Your task to perform on an android device: Open network settings Image 0: 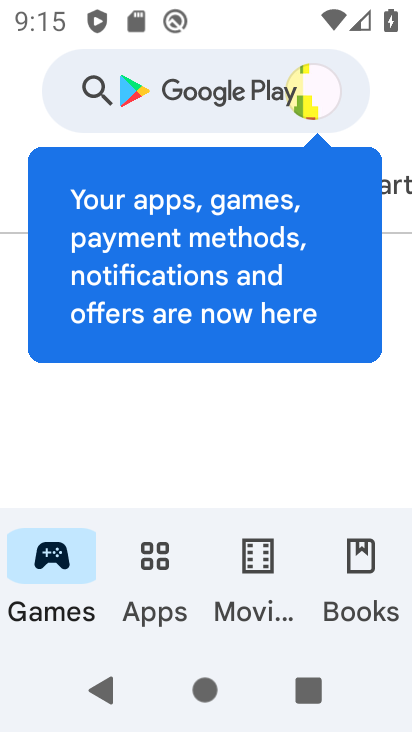
Step 0: press back button
Your task to perform on an android device: Open network settings Image 1: 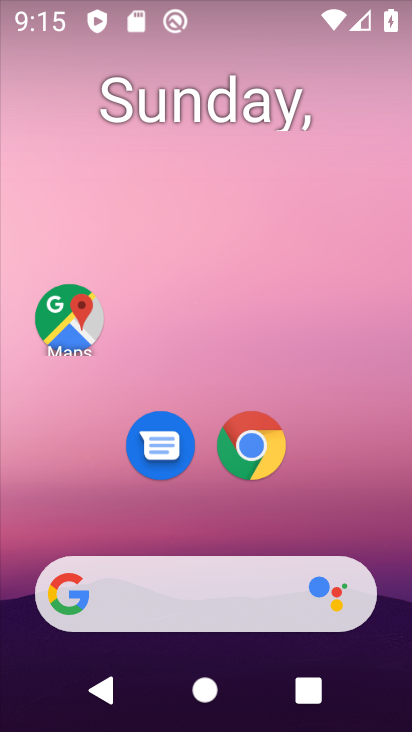
Step 1: drag from (393, 594) to (299, 36)
Your task to perform on an android device: Open network settings Image 2: 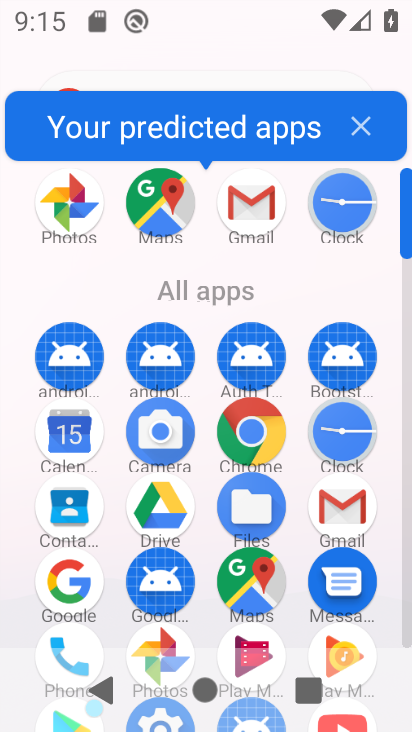
Step 2: drag from (6, 579) to (3, 320)
Your task to perform on an android device: Open network settings Image 3: 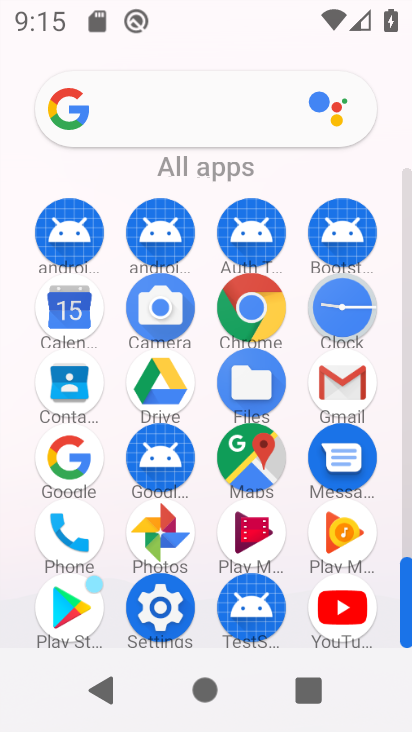
Step 3: click (156, 607)
Your task to perform on an android device: Open network settings Image 4: 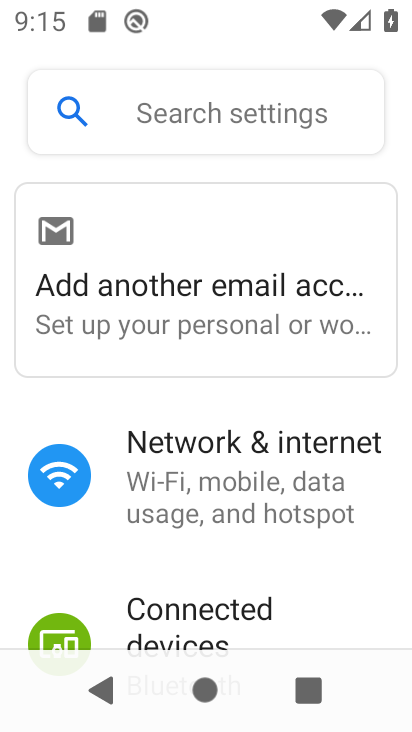
Step 4: click (207, 455)
Your task to perform on an android device: Open network settings Image 5: 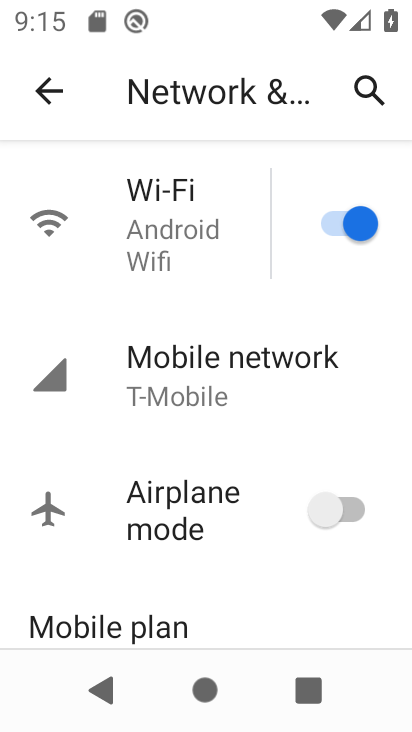
Step 5: task complete